Your task to perform on an android device: Open my contact list Image 0: 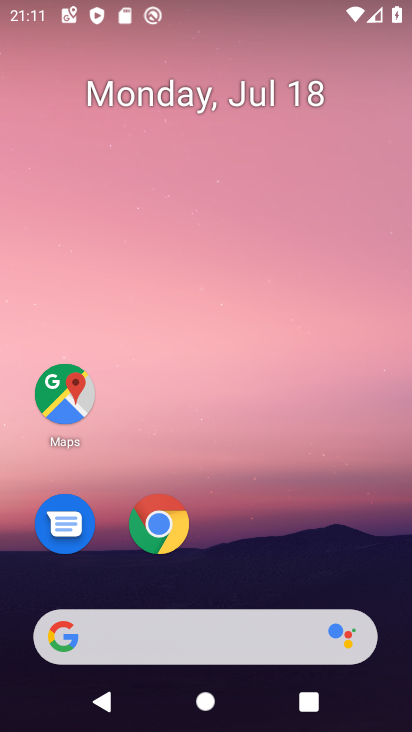
Step 0: drag from (271, 523) to (264, 5)
Your task to perform on an android device: Open my contact list Image 1: 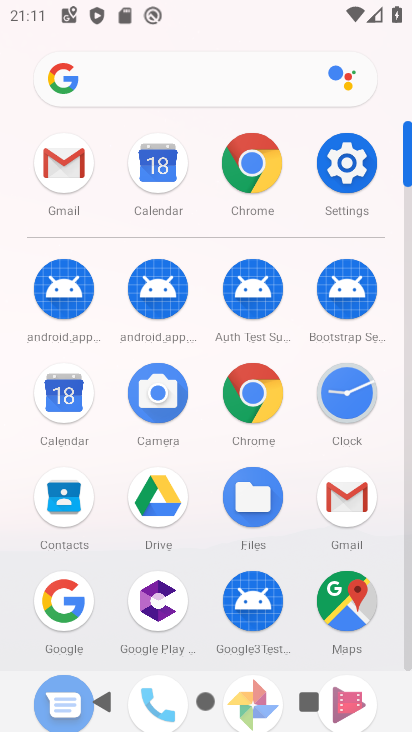
Step 1: click (70, 495)
Your task to perform on an android device: Open my contact list Image 2: 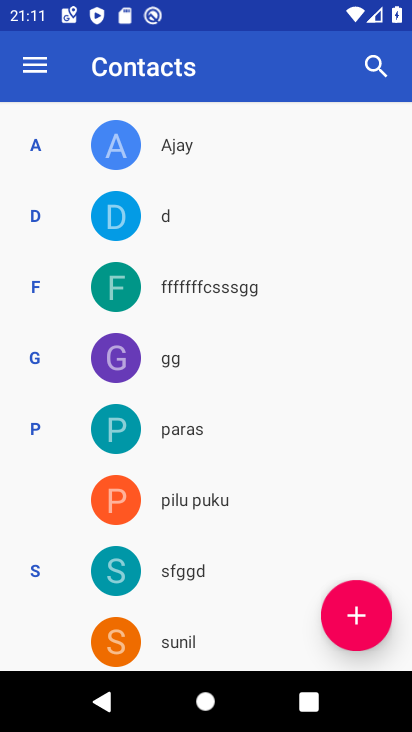
Step 2: task complete